Your task to perform on an android device: open app "WhatsApp Messenger" (install if not already installed) and go to login screen Image 0: 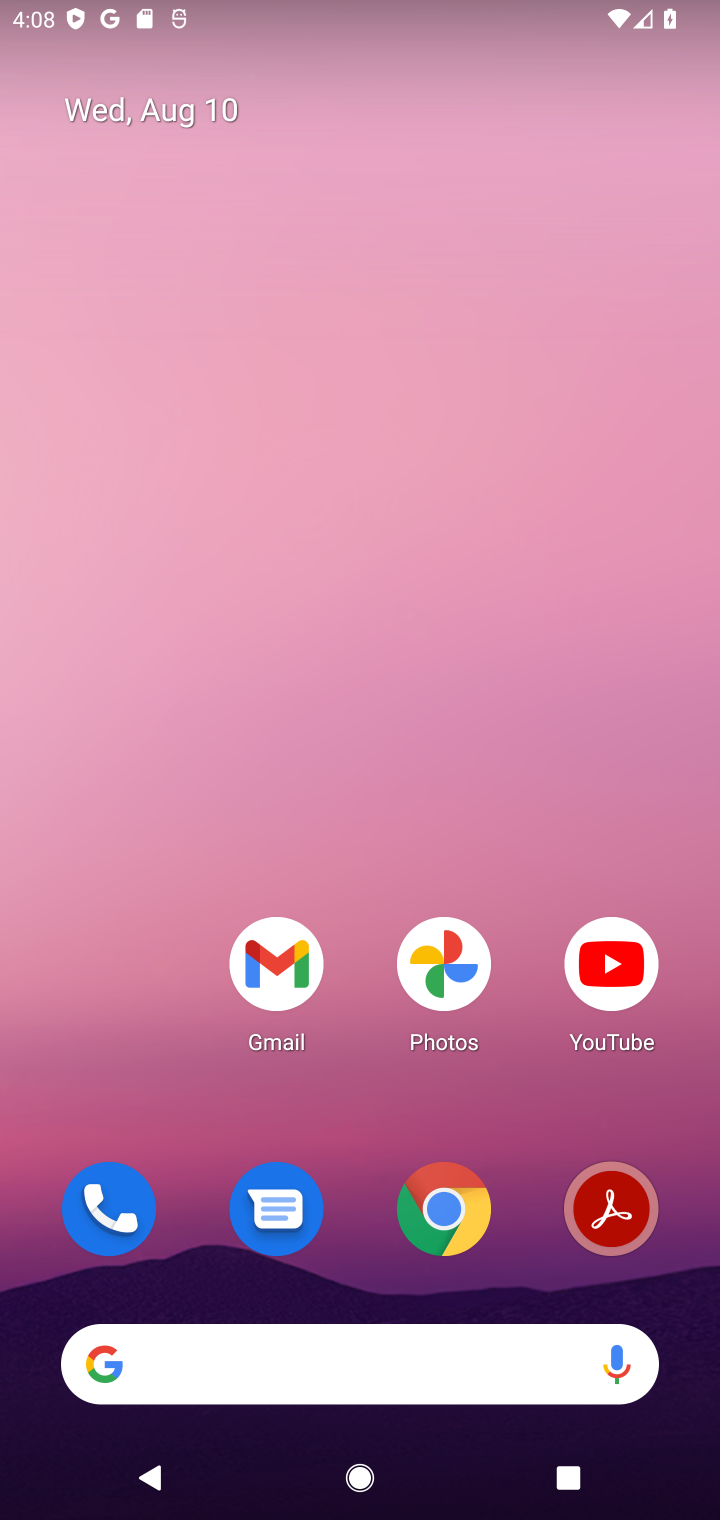
Step 0: drag from (505, 1262) to (441, 72)
Your task to perform on an android device: open app "WhatsApp Messenger" (install if not already installed) and go to login screen Image 1: 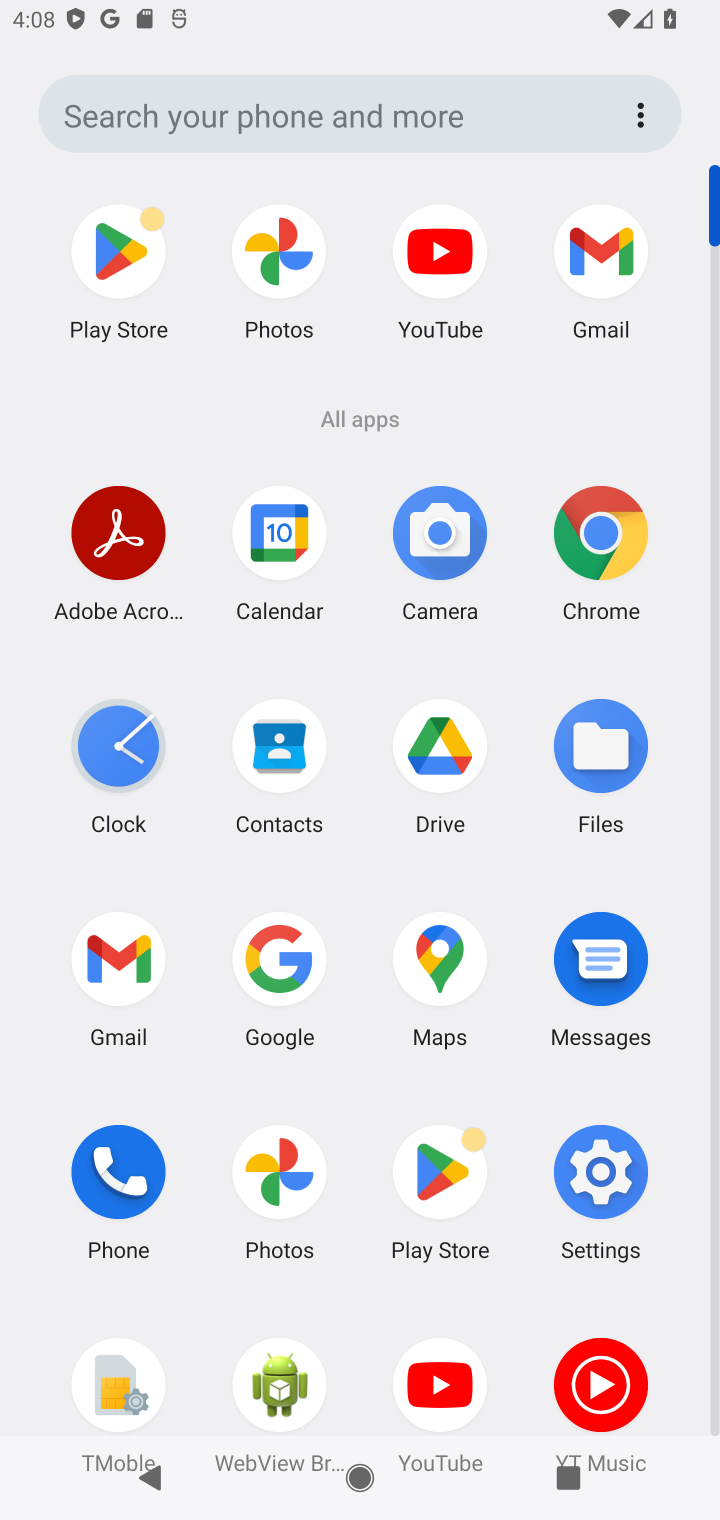
Step 1: click (119, 296)
Your task to perform on an android device: open app "WhatsApp Messenger" (install if not already installed) and go to login screen Image 2: 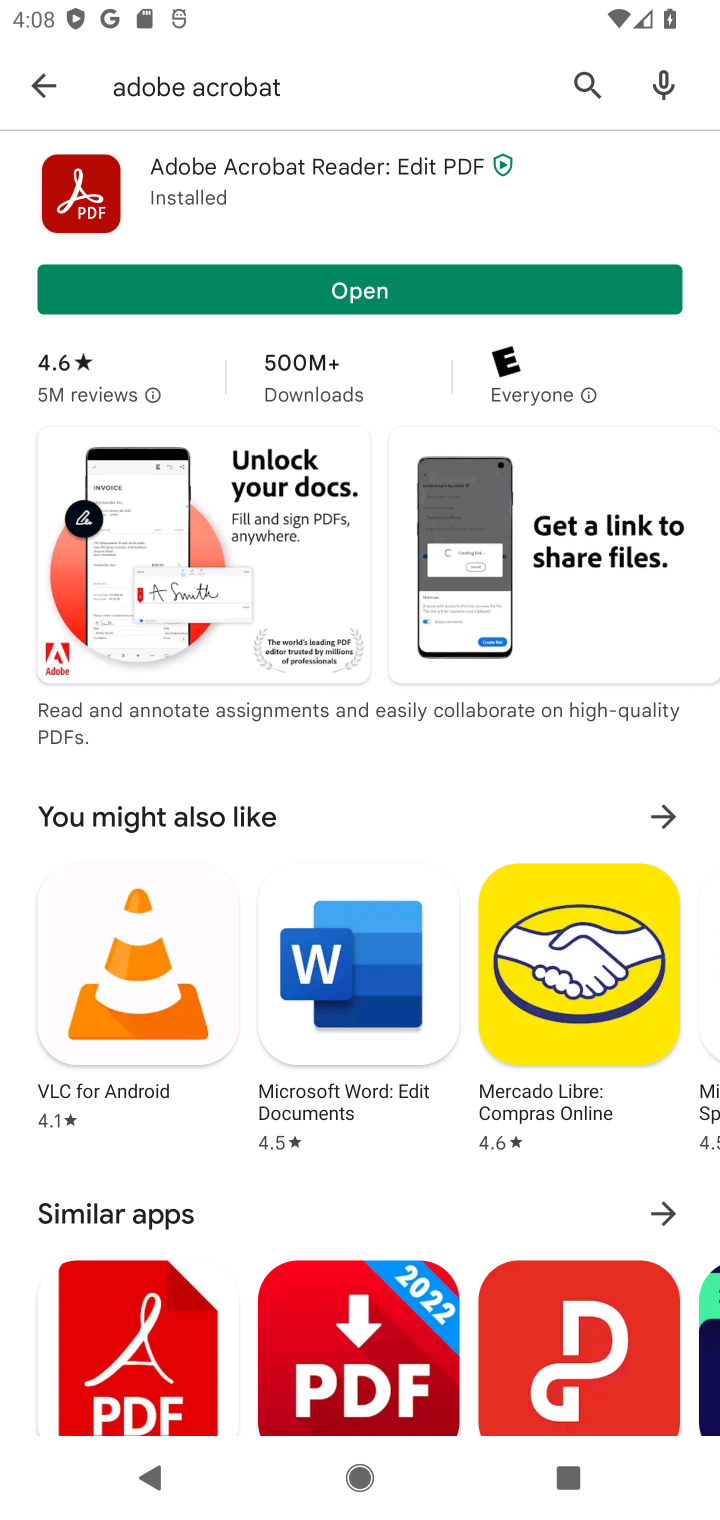
Step 2: click (576, 100)
Your task to perform on an android device: open app "WhatsApp Messenger" (install if not already installed) and go to login screen Image 3: 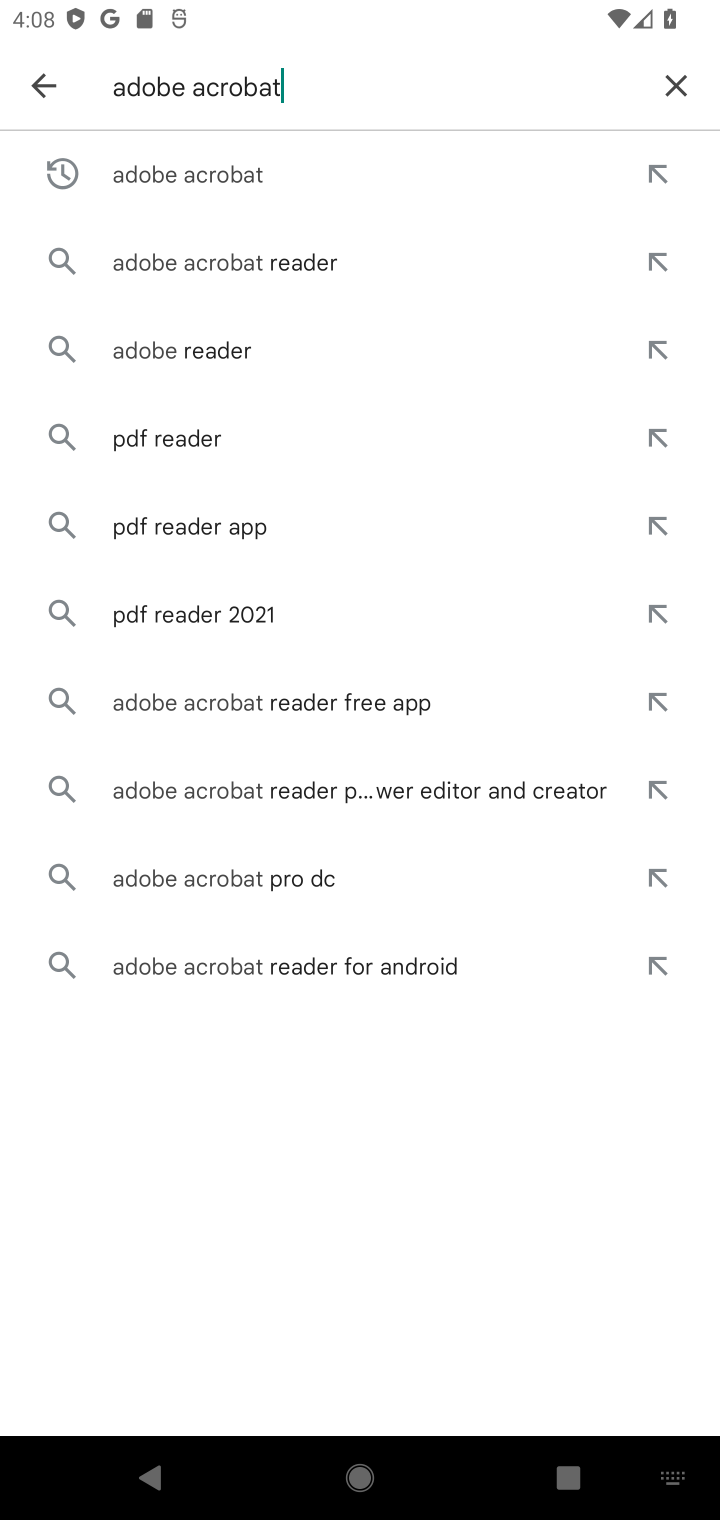
Step 3: click (666, 97)
Your task to perform on an android device: open app "WhatsApp Messenger" (install if not already installed) and go to login screen Image 4: 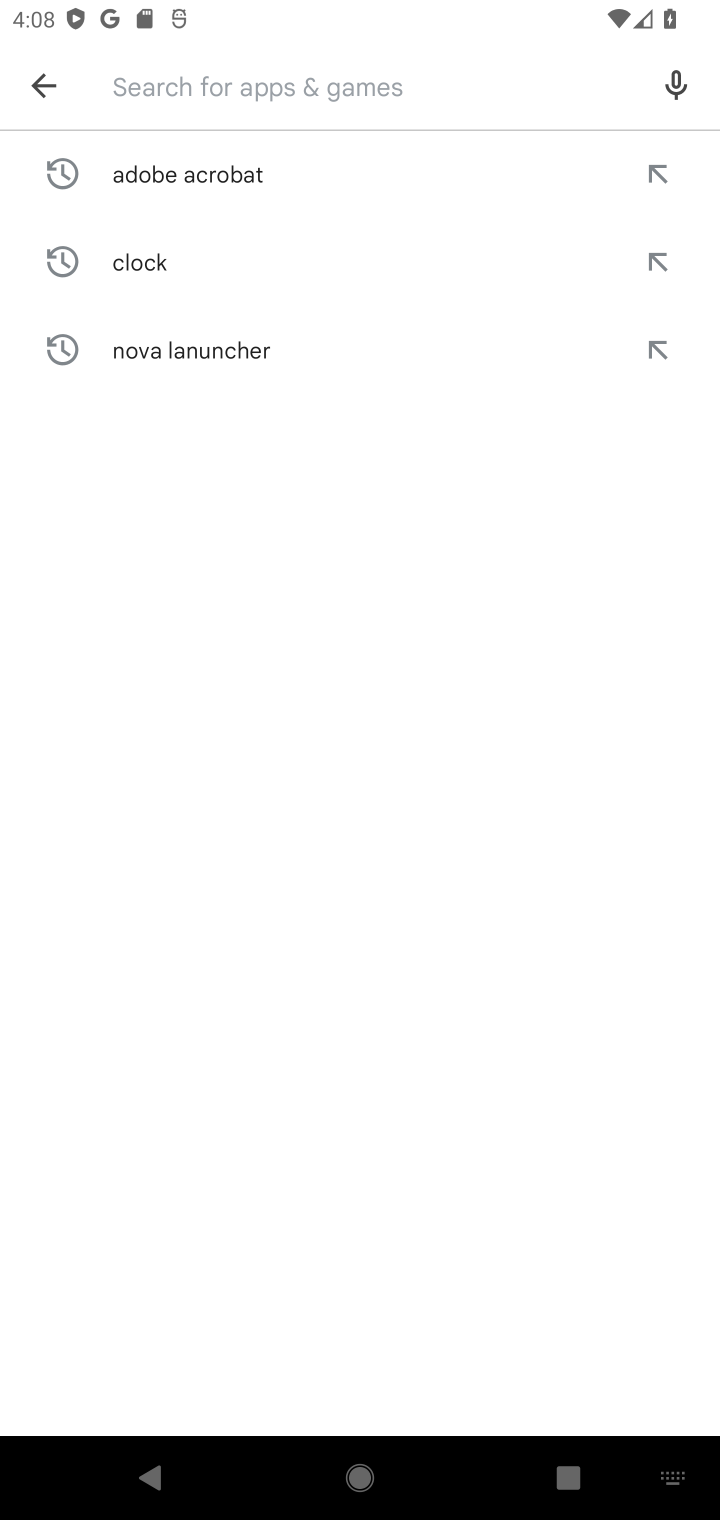
Step 4: type "whataap"
Your task to perform on an android device: open app "WhatsApp Messenger" (install if not already installed) and go to login screen Image 5: 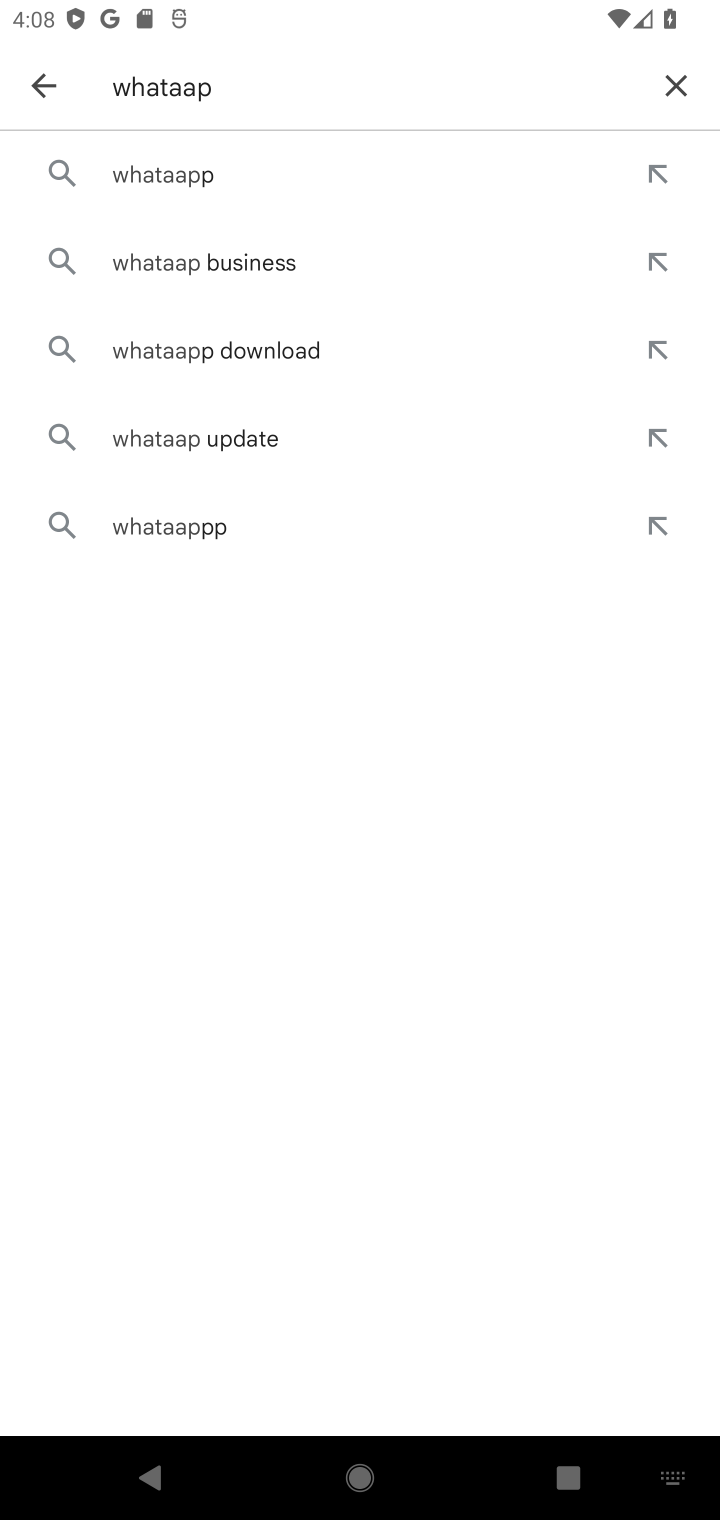
Step 5: click (241, 159)
Your task to perform on an android device: open app "WhatsApp Messenger" (install if not already installed) and go to login screen Image 6: 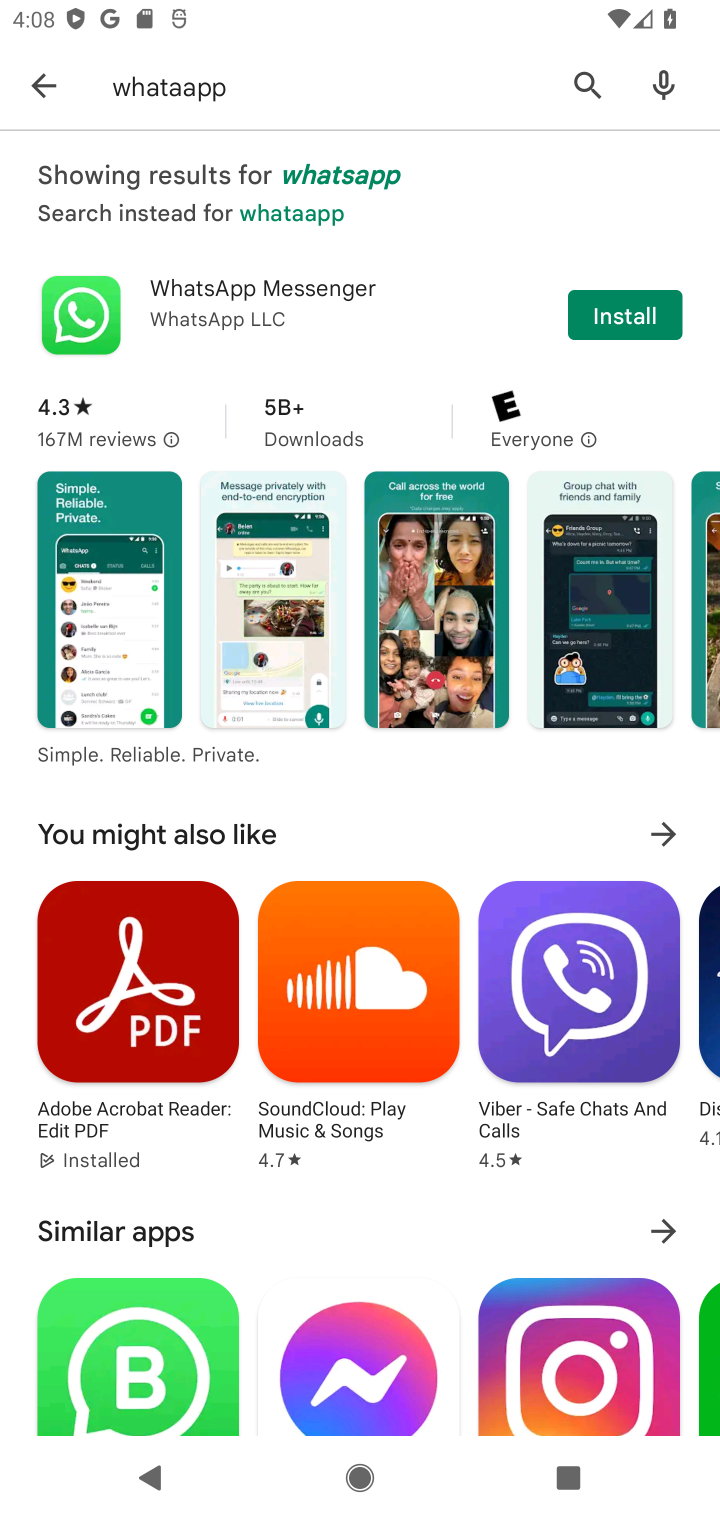
Step 6: click (579, 327)
Your task to perform on an android device: open app "WhatsApp Messenger" (install if not already installed) and go to login screen Image 7: 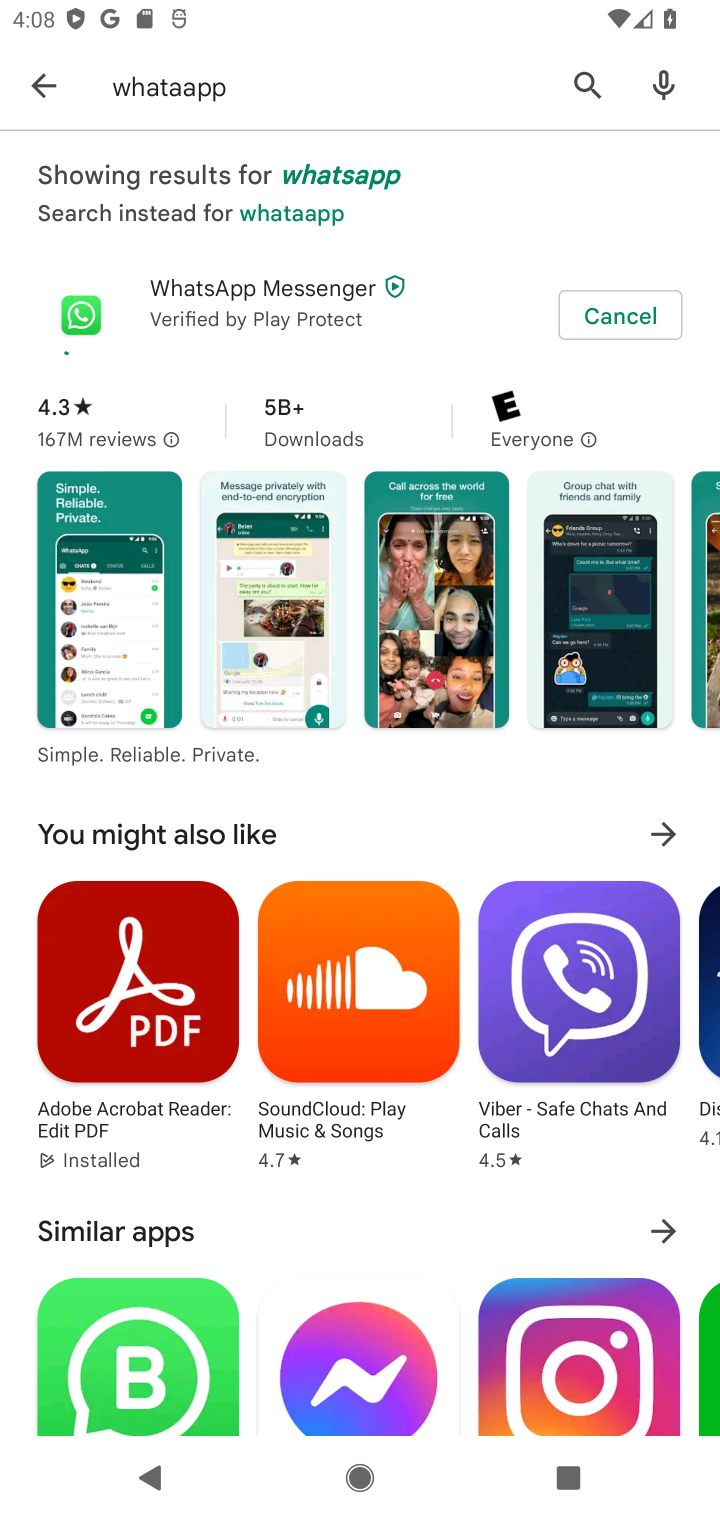
Step 7: task complete